Your task to perform on an android device: See recent photos Image 0: 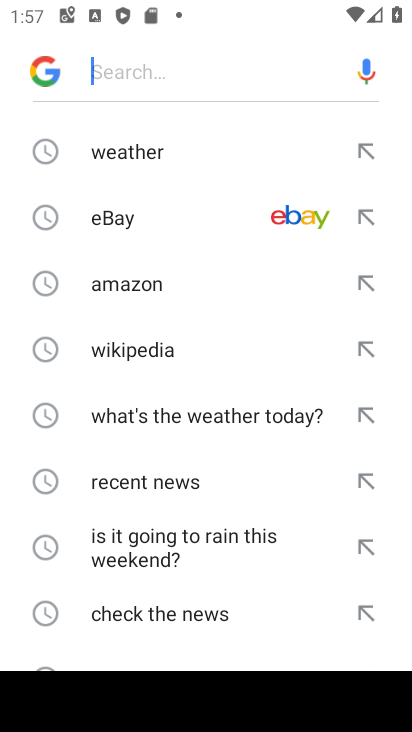
Step 0: press home button
Your task to perform on an android device: See recent photos Image 1: 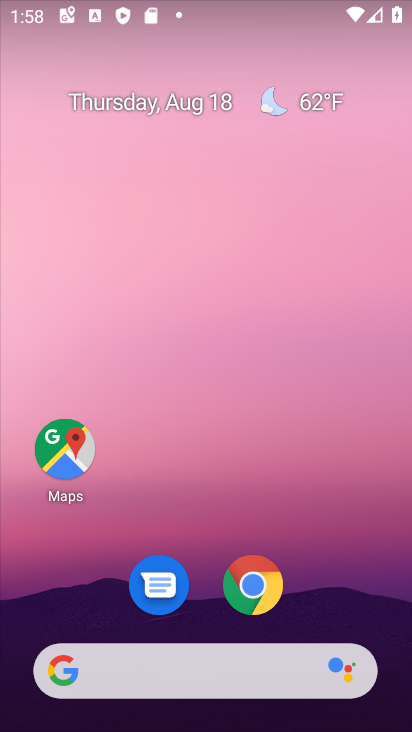
Step 1: drag from (204, 502) to (232, 0)
Your task to perform on an android device: See recent photos Image 2: 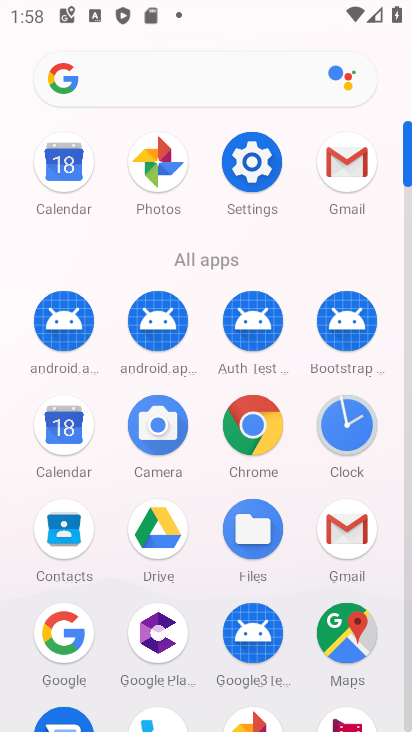
Step 2: click (161, 162)
Your task to perform on an android device: See recent photos Image 3: 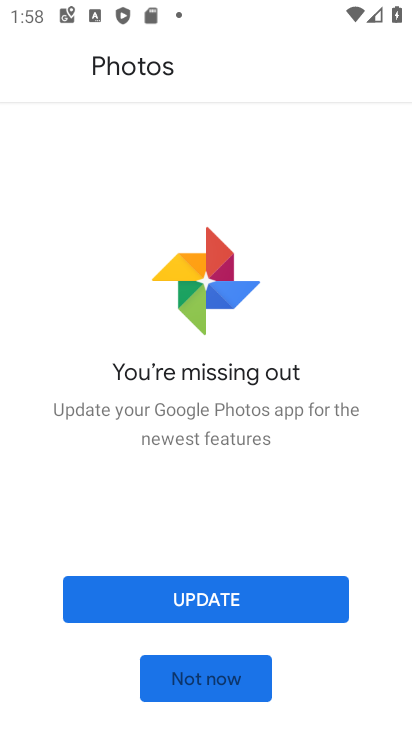
Step 3: click (221, 676)
Your task to perform on an android device: See recent photos Image 4: 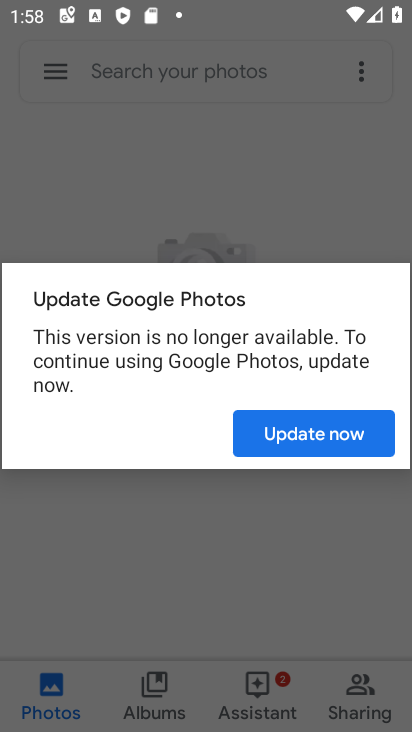
Step 4: click (342, 432)
Your task to perform on an android device: See recent photos Image 5: 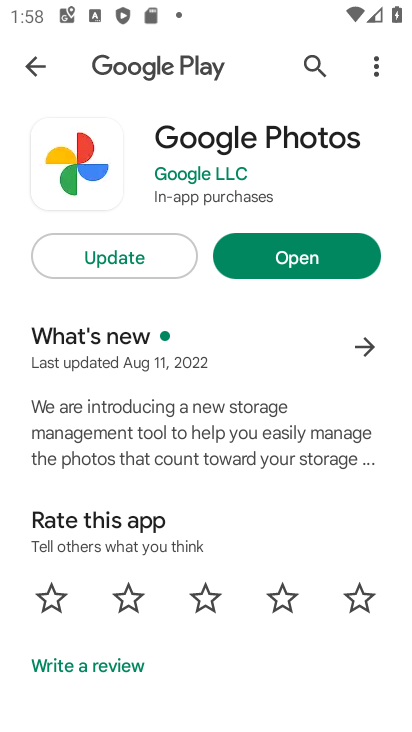
Step 5: click (310, 256)
Your task to perform on an android device: See recent photos Image 6: 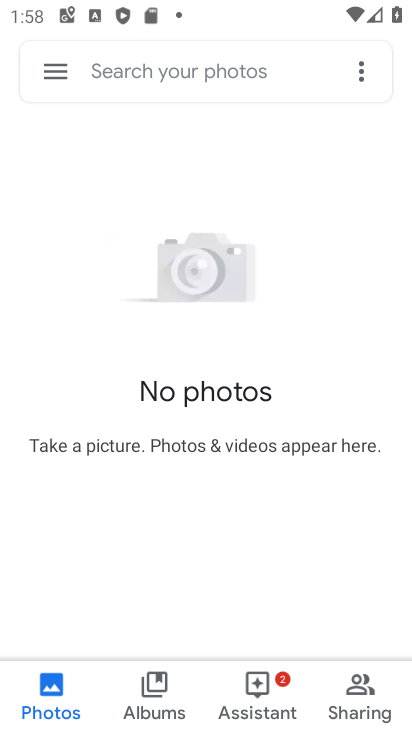
Step 6: task complete